Your task to perform on an android device: turn on location history Image 0: 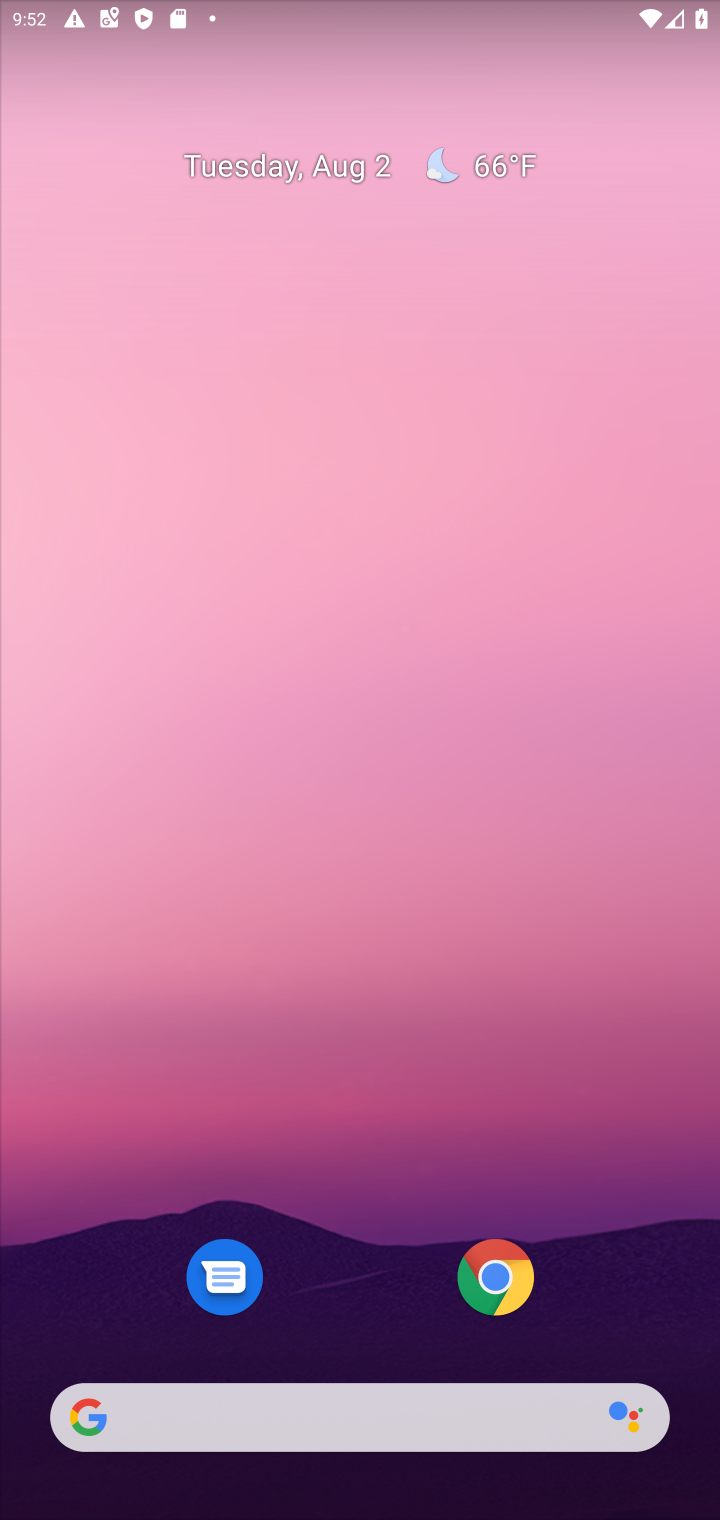
Step 0: drag from (274, 1076) to (256, 627)
Your task to perform on an android device: turn on location history Image 1: 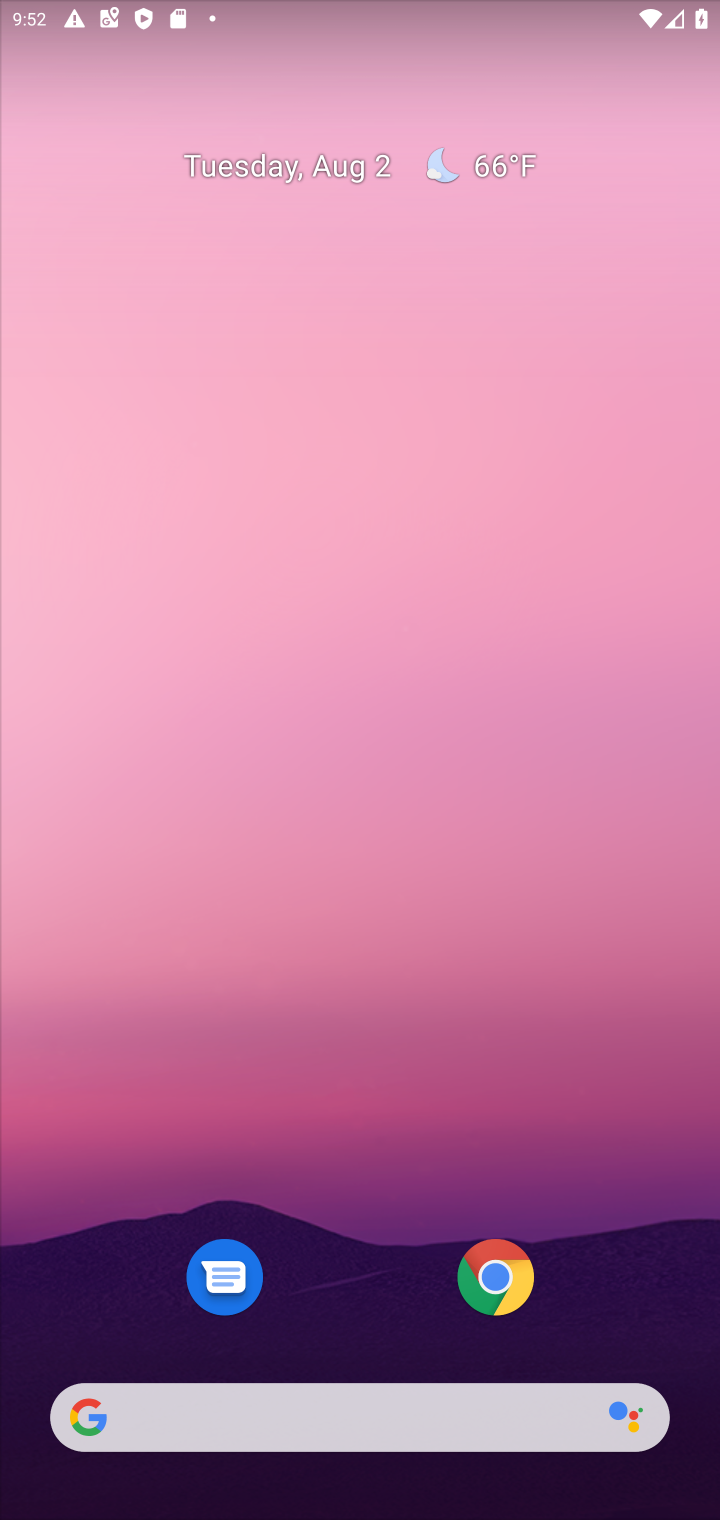
Step 1: drag from (323, 906) to (386, 151)
Your task to perform on an android device: turn on location history Image 2: 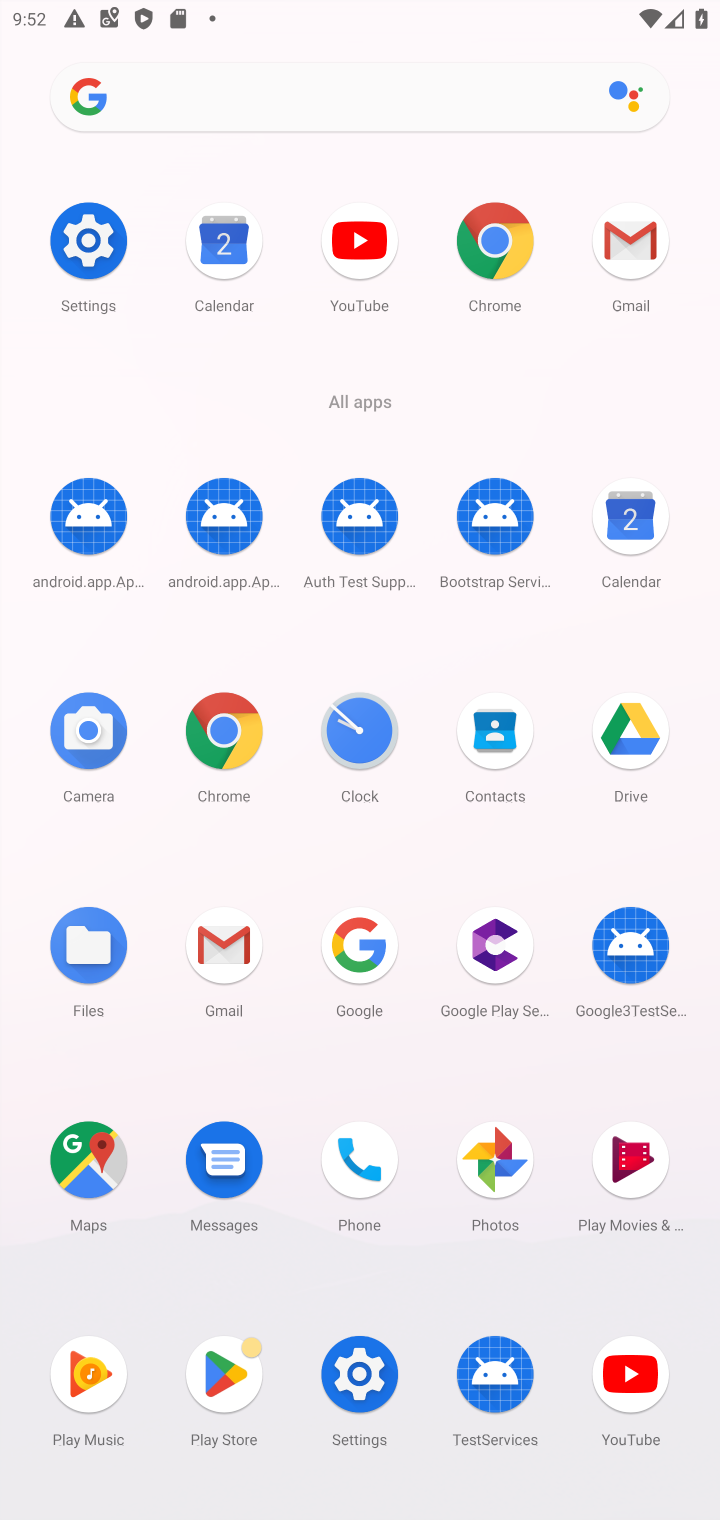
Step 2: click (348, 1365)
Your task to perform on an android device: turn on location history Image 3: 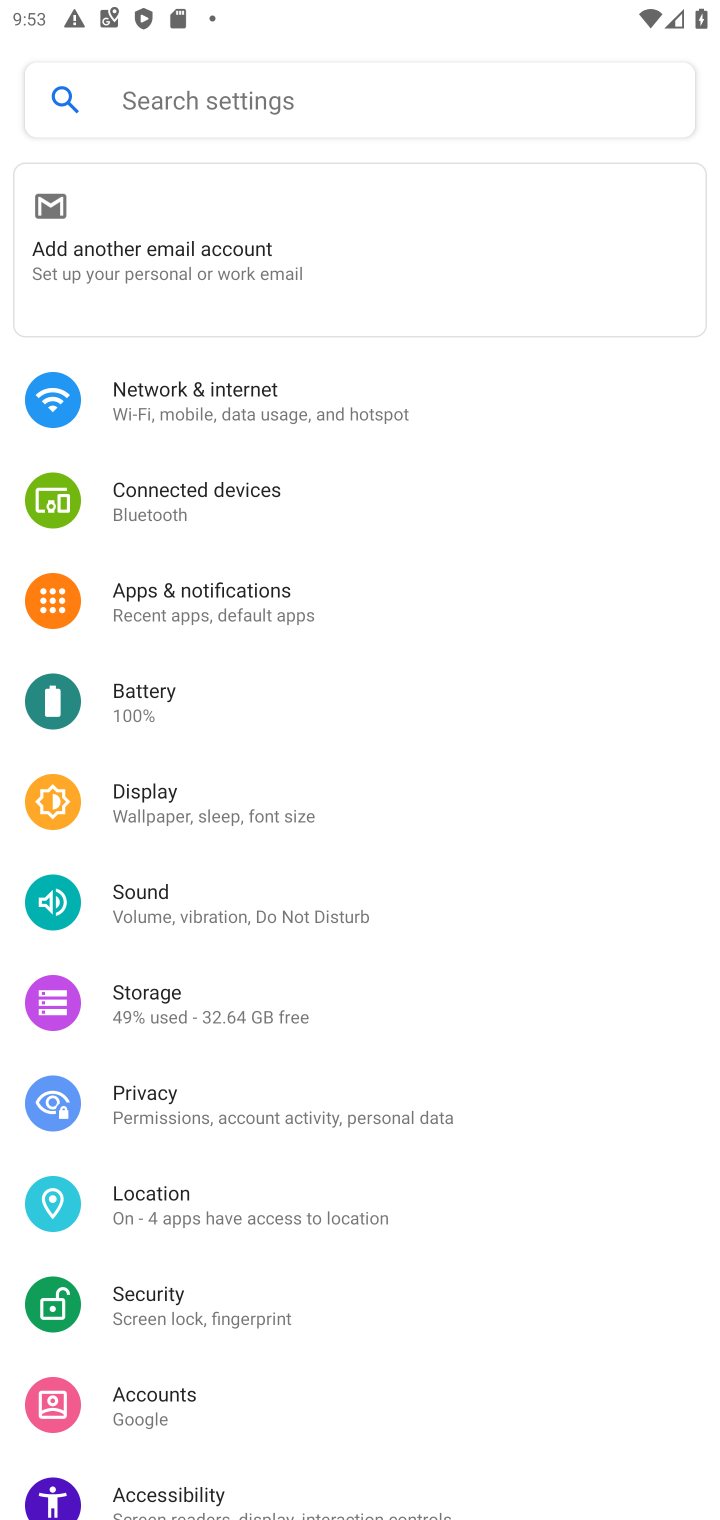
Step 3: click (175, 1202)
Your task to perform on an android device: turn on location history Image 4: 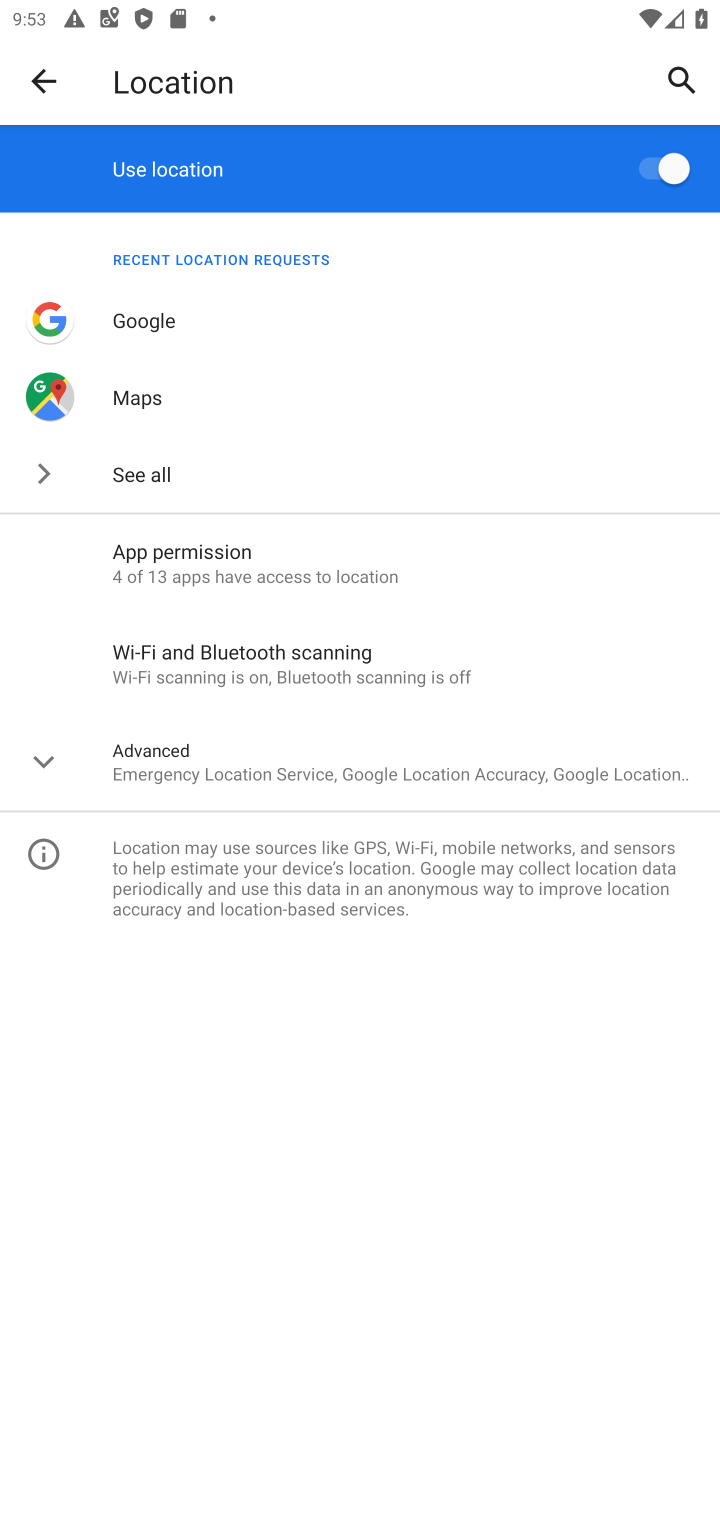
Step 4: task complete